Your task to perform on an android device: Search for Mexican restaurants on Maps Image 0: 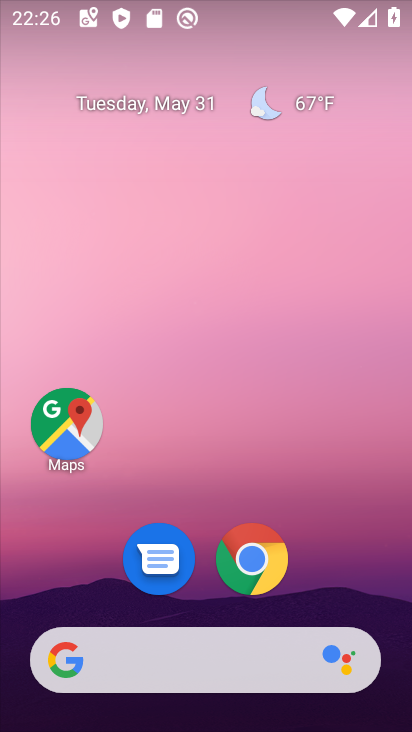
Step 0: click (68, 422)
Your task to perform on an android device: Search for Mexican restaurants on Maps Image 1: 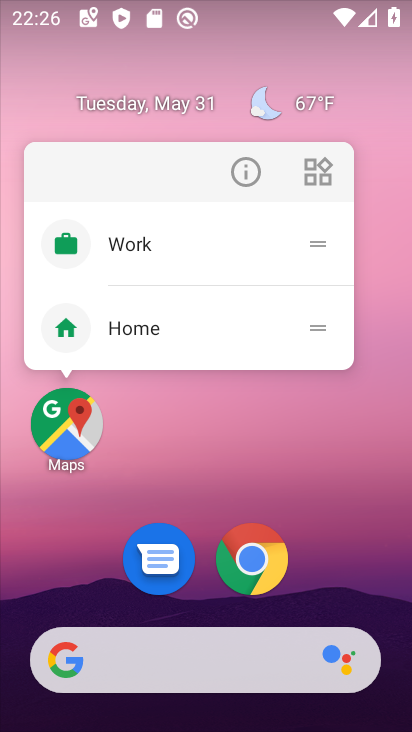
Step 1: click (70, 422)
Your task to perform on an android device: Search for Mexican restaurants on Maps Image 2: 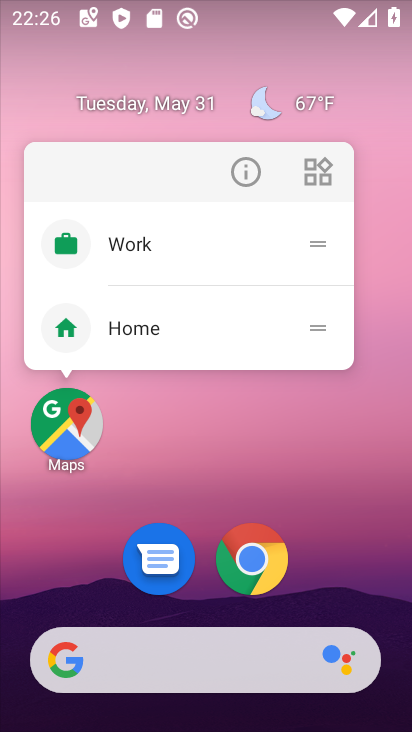
Step 2: click (70, 422)
Your task to perform on an android device: Search for Mexican restaurants on Maps Image 3: 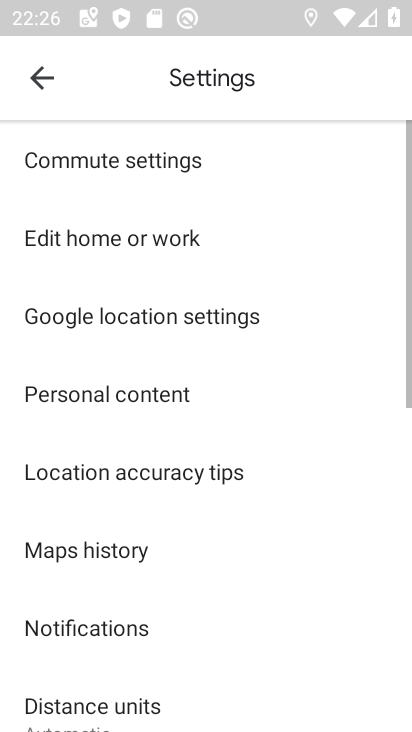
Step 3: press back button
Your task to perform on an android device: Search for Mexican restaurants on Maps Image 4: 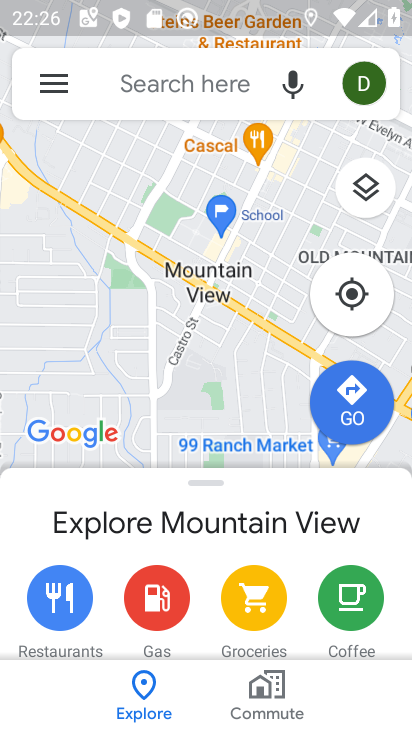
Step 4: click (152, 84)
Your task to perform on an android device: Search for Mexican restaurants on Maps Image 5: 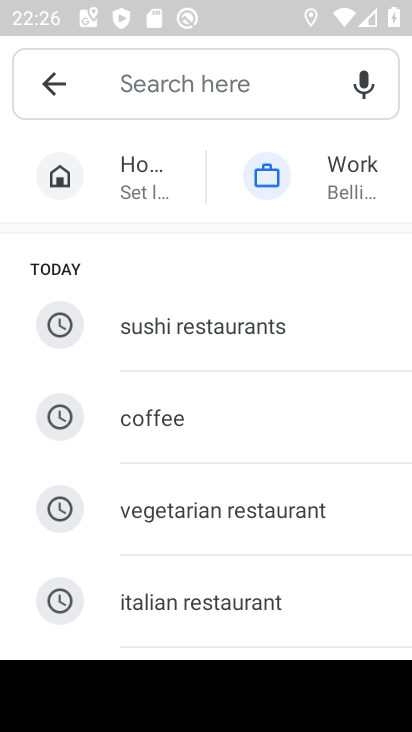
Step 5: drag from (195, 558) to (205, 336)
Your task to perform on an android device: Search for Mexican restaurants on Maps Image 6: 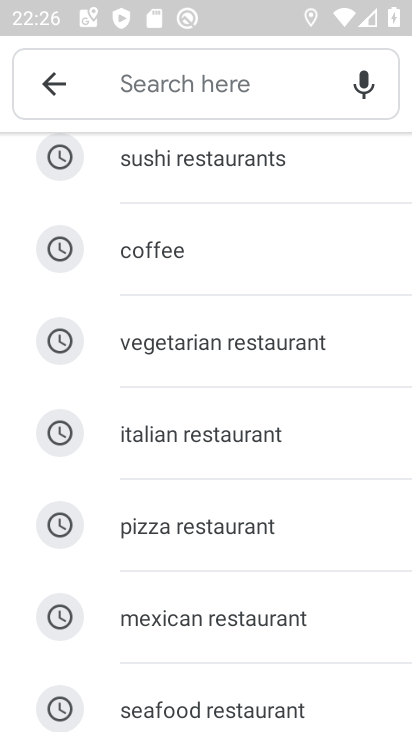
Step 6: click (176, 622)
Your task to perform on an android device: Search for Mexican restaurants on Maps Image 7: 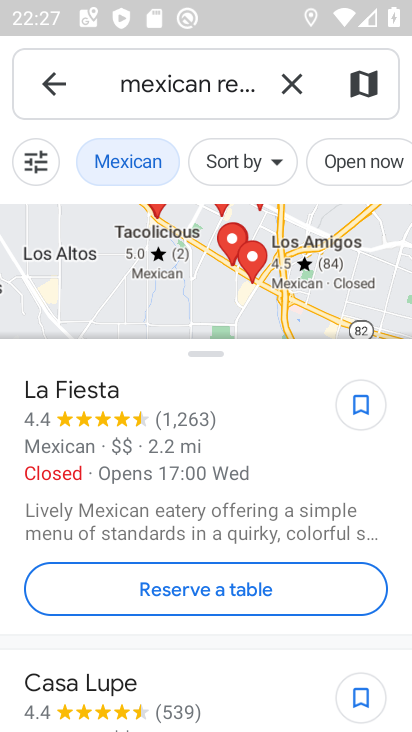
Step 7: task complete